Your task to perform on an android device: Open privacy settings Image 0: 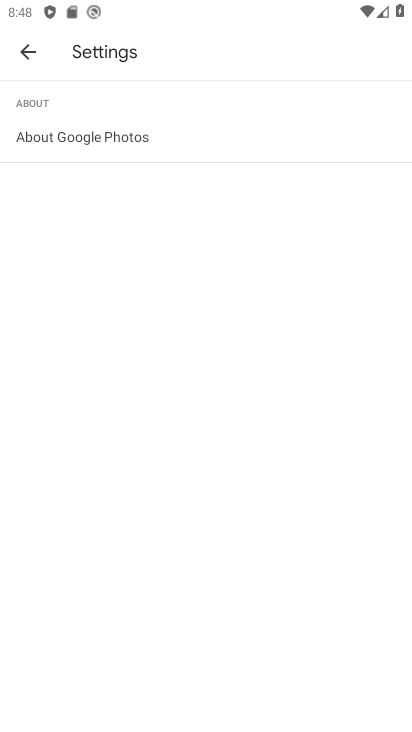
Step 0: press home button
Your task to perform on an android device: Open privacy settings Image 1: 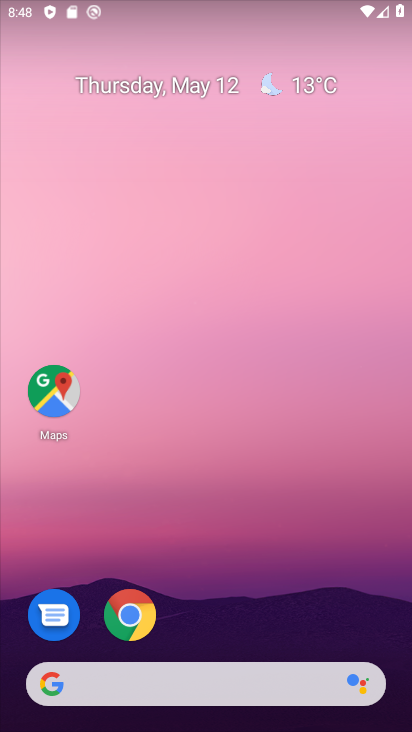
Step 1: drag from (171, 646) to (129, 3)
Your task to perform on an android device: Open privacy settings Image 2: 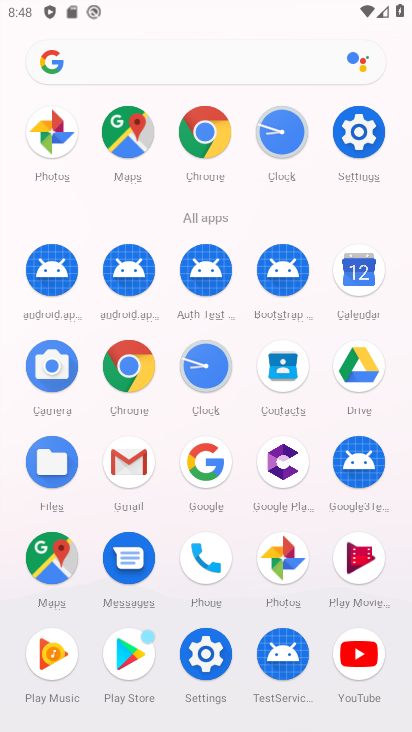
Step 2: click (358, 123)
Your task to perform on an android device: Open privacy settings Image 3: 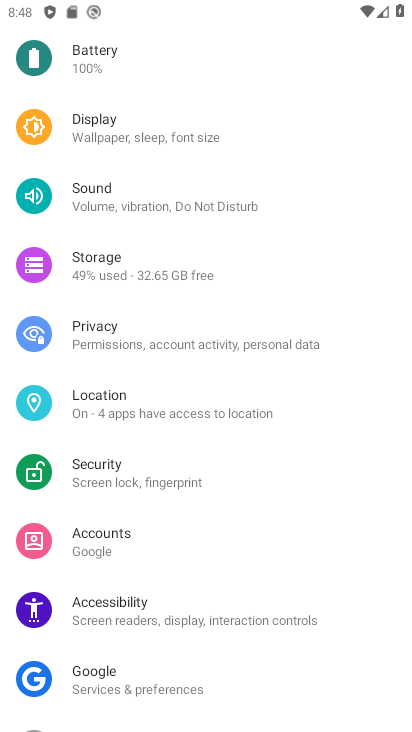
Step 3: click (111, 312)
Your task to perform on an android device: Open privacy settings Image 4: 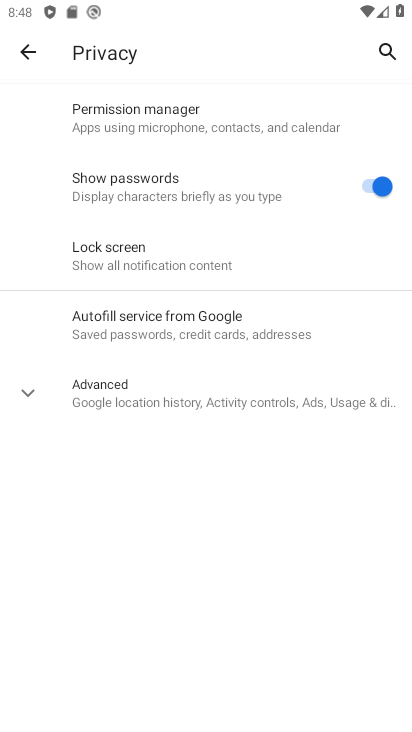
Step 4: click (176, 379)
Your task to perform on an android device: Open privacy settings Image 5: 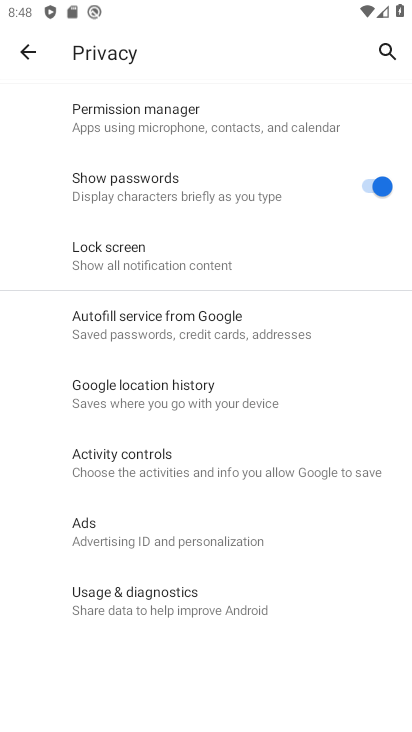
Step 5: task complete